Your task to perform on an android device: see tabs open on other devices in the chrome app Image 0: 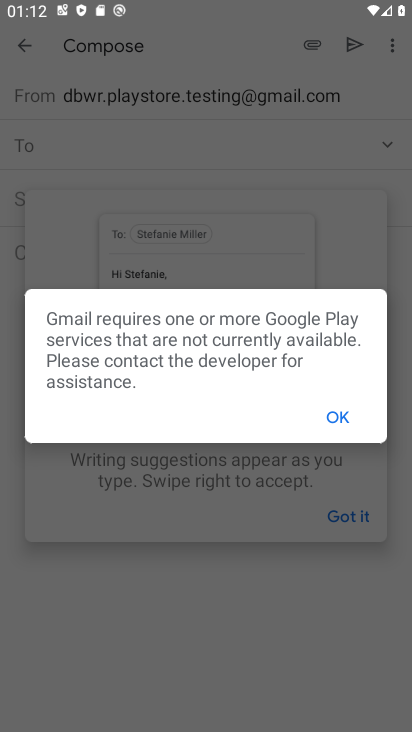
Step 0: press home button
Your task to perform on an android device: see tabs open on other devices in the chrome app Image 1: 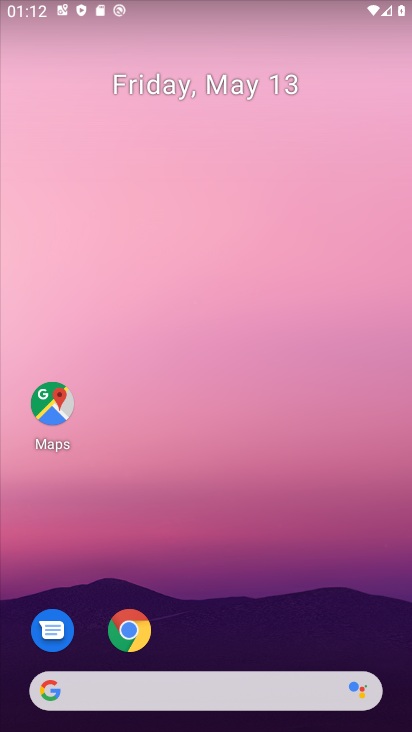
Step 1: drag from (292, 708) to (205, 334)
Your task to perform on an android device: see tabs open on other devices in the chrome app Image 2: 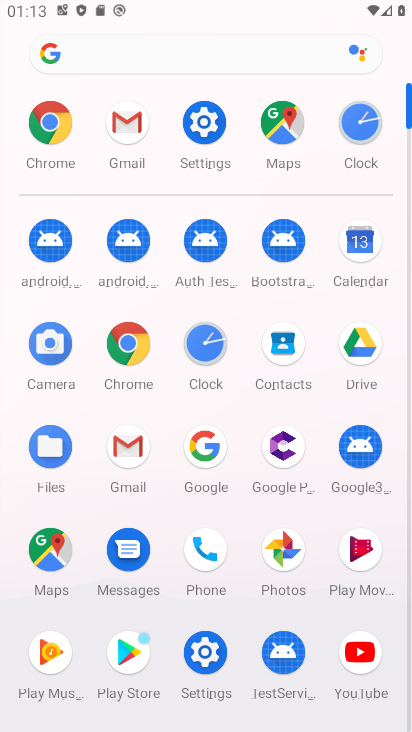
Step 2: click (136, 339)
Your task to perform on an android device: see tabs open on other devices in the chrome app Image 3: 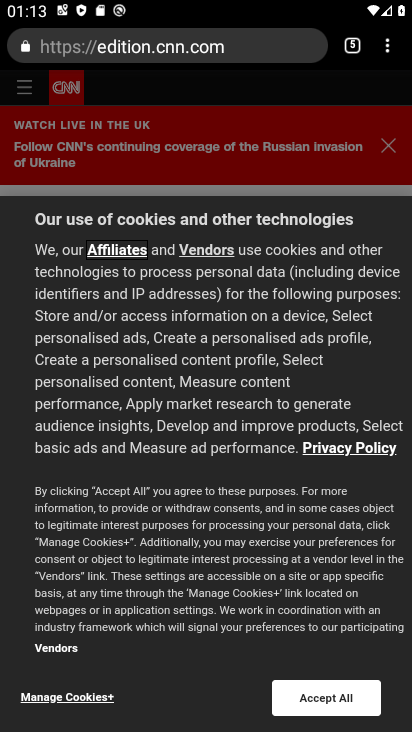
Step 3: click (347, 52)
Your task to perform on an android device: see tabs open on other devices in the chrome app Image 4: 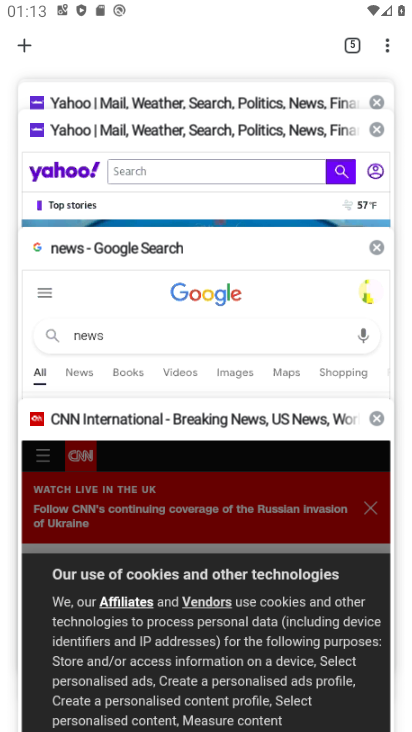
Step 4: click (25, 41)
Your task to perform on an android device: see tabs open on other devices in the chrome app Image 5: 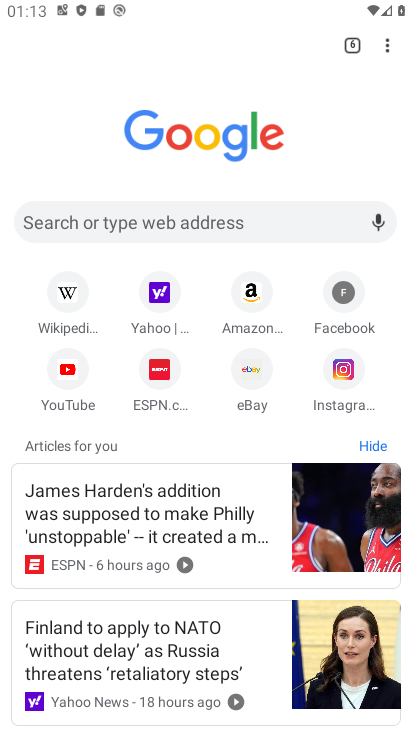
Step 5: task complete